Your task to perform on an android device: turn on location history Image 0: 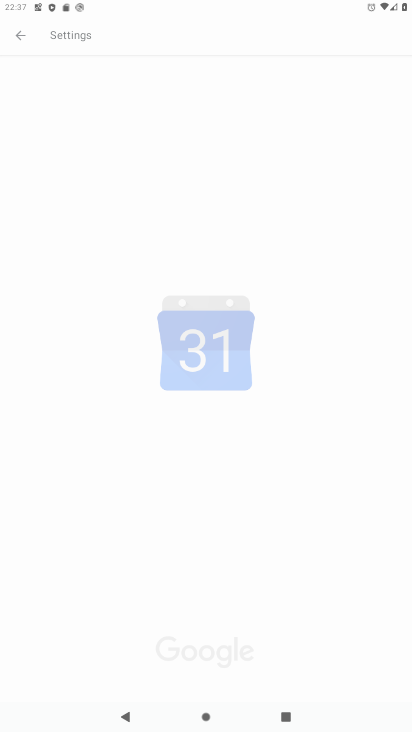
Step 0: drag from (185, 631) to (252, 250)
Your task to perform on an android device: turn on location history Image 1: 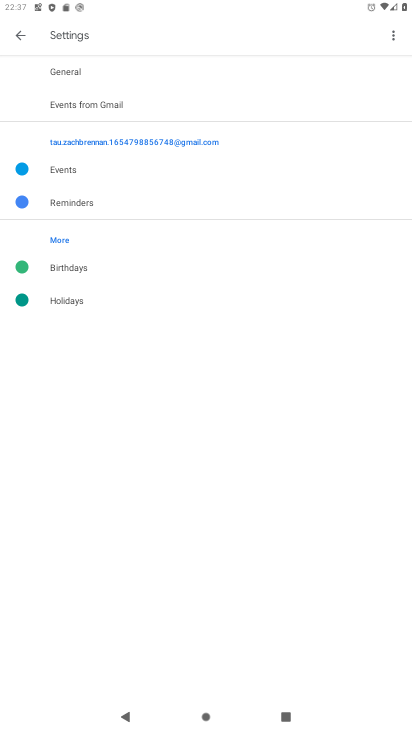
Step 1: drag from (179, 583) to (232, 332)
Your task to perform on an android device: turn on location history Image 2: 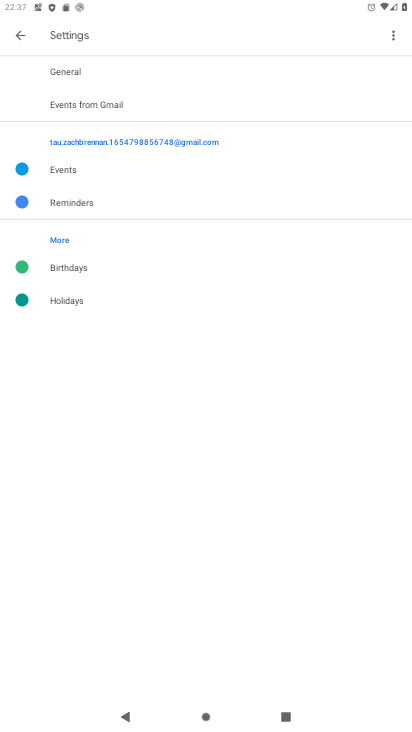
Step 2: press home button
Your task to perform on an android device: turn on location history Image 3: 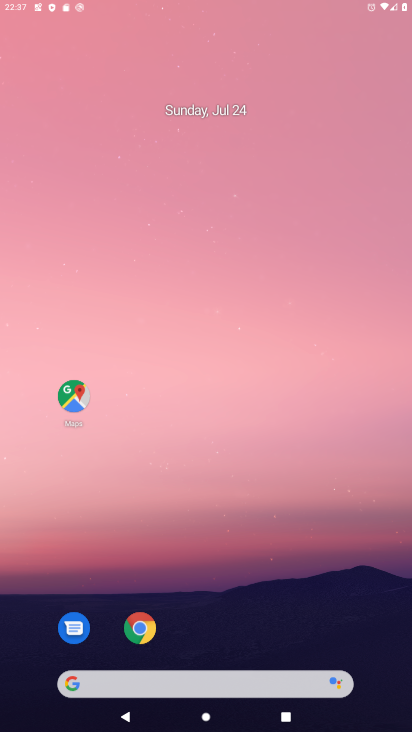
Step 3: drag from (110, 509) to (265, 95)
Your task to perform on an android device: turn on location history Image 4: 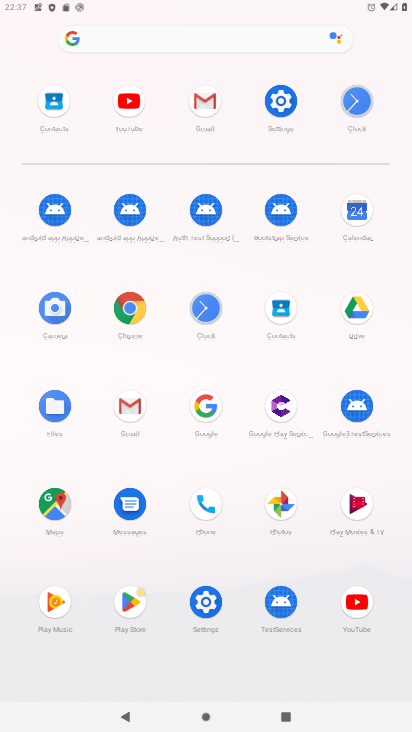
Step 4: click (208, 604)
Your task to perform on an android device: turn on location history Image 5: 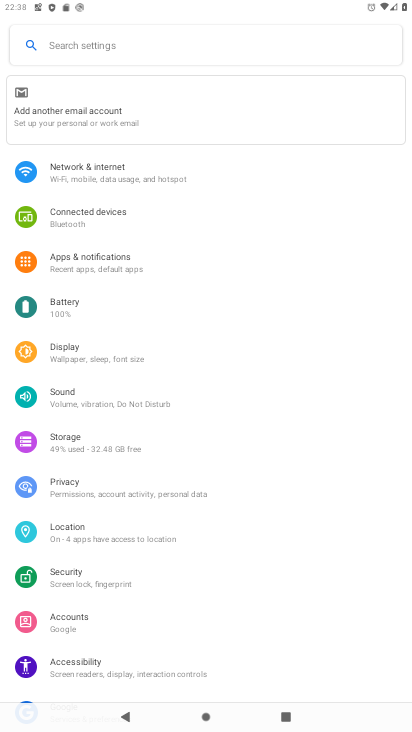
Step 5: click (59, 528)
Your task to perform on an android device: turn on location history Image 6: 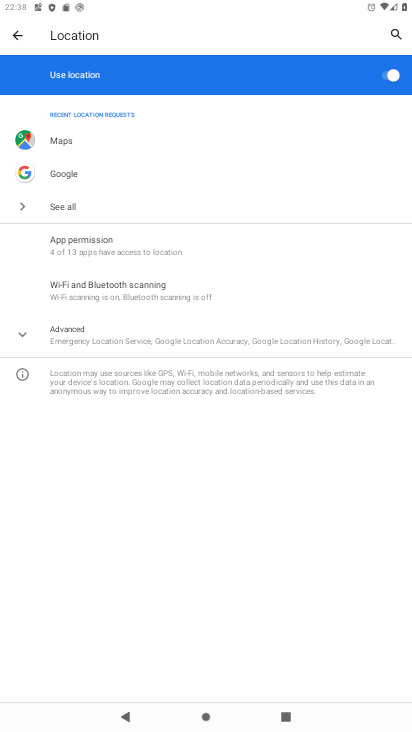
Step 6: task complete